Your task to perform on an android device: turn on data saver in the chrome app Image 0: 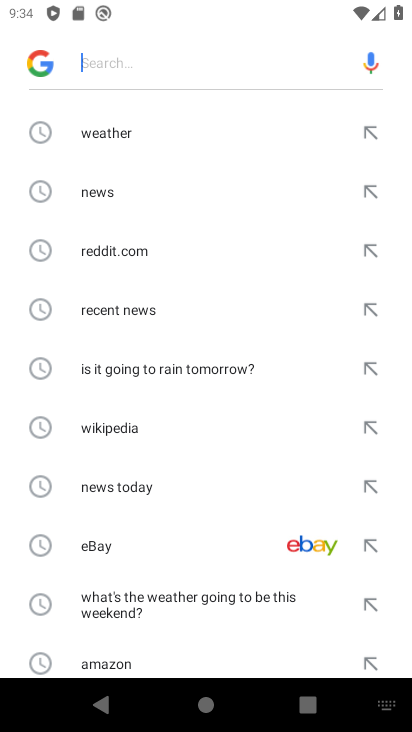
Step 0: press back button
Your task to perform on an android device: turn on data saver in the chrome app Image 1: 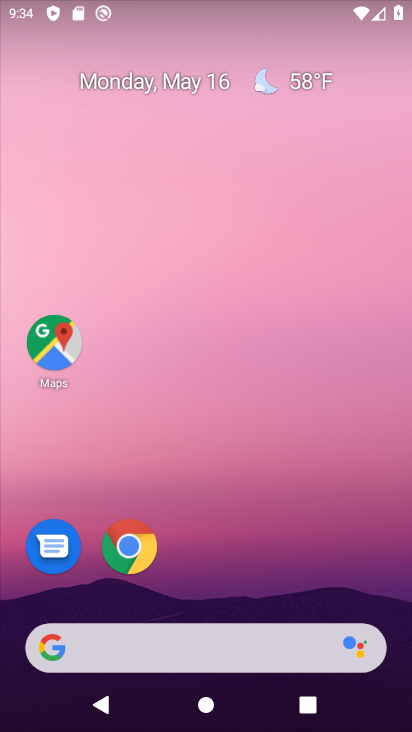
Step 1: click (130, 543)
Your task to perform on an android device: turn on data saver in the chrome app Image 2: 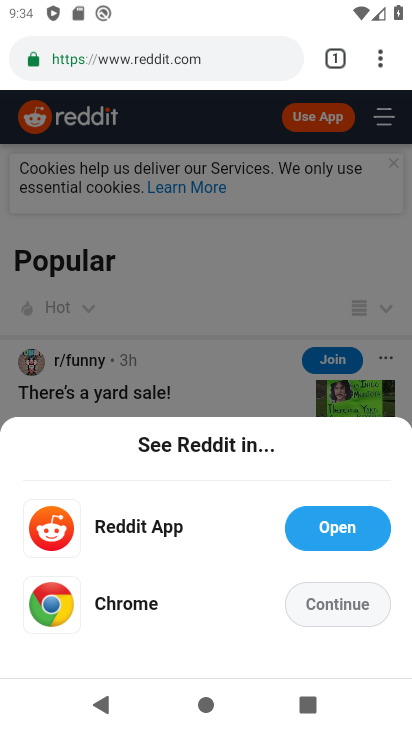
Step 2: click (380, 60)
Your task to perform on an android device: turn on data saver in the chrome app Image 3: 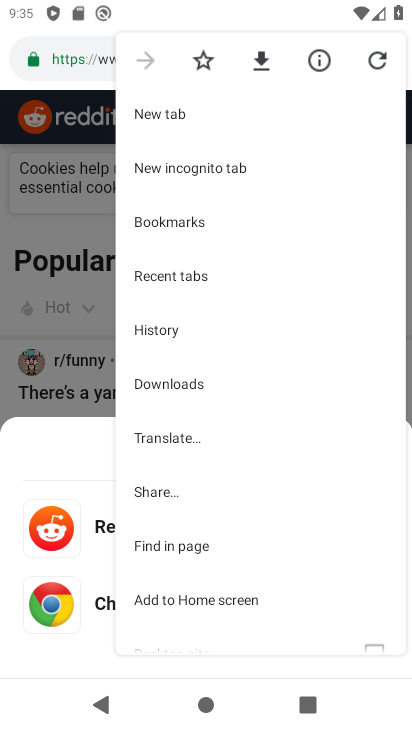
Step 3: drag from (191, 499) to (231, 444)
Your task to perform on an android device: turn on data saver in the chrome app Image 4: 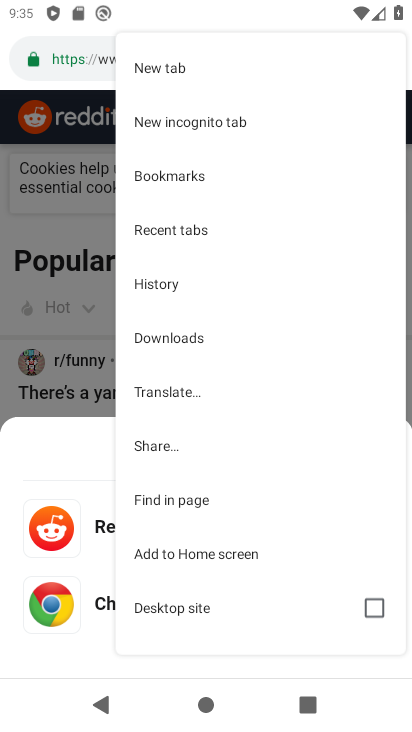
Step 4: drag from (185, 568) to (234, 496)
Your task to perform on an android device: turn on data saver in the chrome app Image 5: 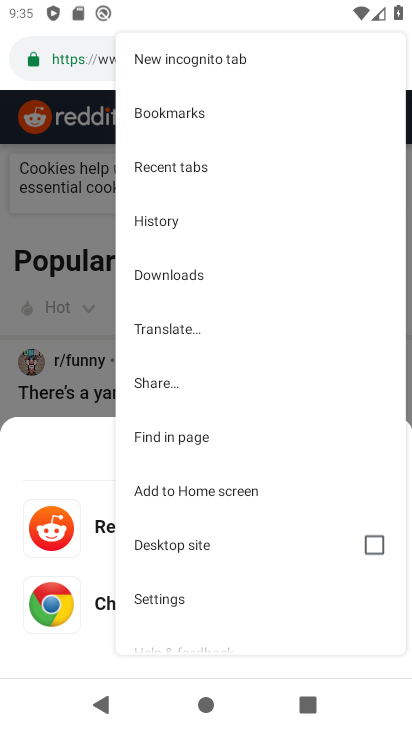
Step 5: drag from (188, 561) to (246, 476)
Your task to perform on an android device: turn on data saver in the chrome app Image 6: 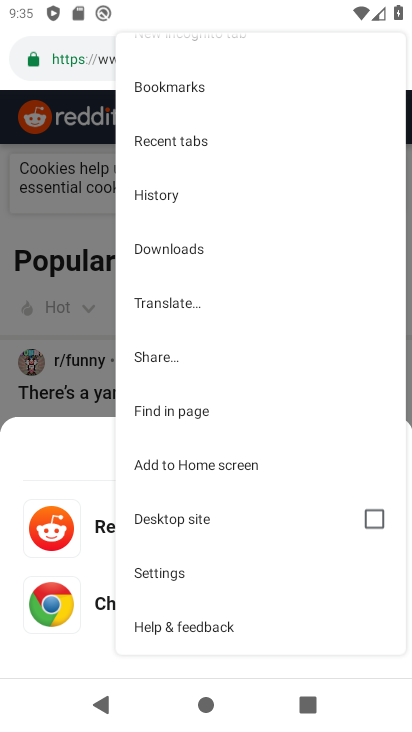
Step 6: click (164, 576)
Your task to perform on an android device: turn on data saver in the chrome app Image 7: 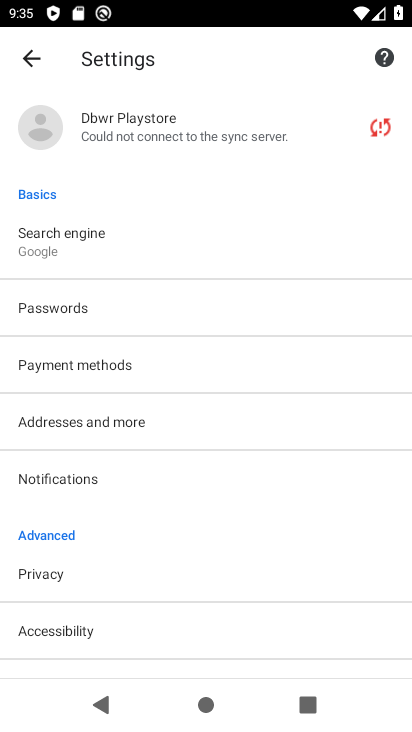
Step 7: drag from (128, 532) to (170, 463)
Your task to perform on an android device: turn on data saver in the chrome app Image 8: 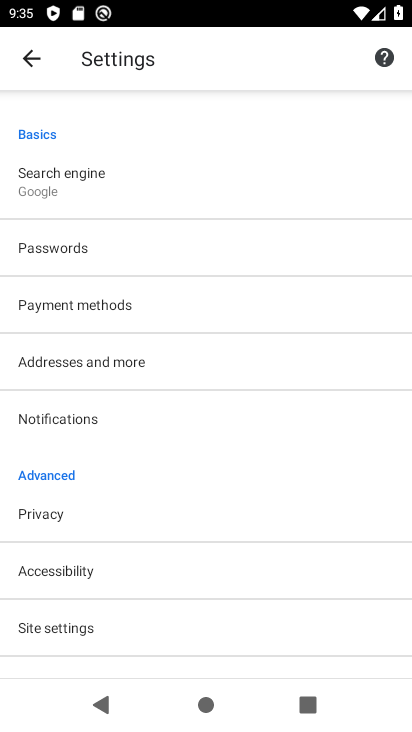
Step 8: drag from (105, 580) to (170, 468)
Your task to perform on an android device: turn on data saver in the chrome app Image 9: 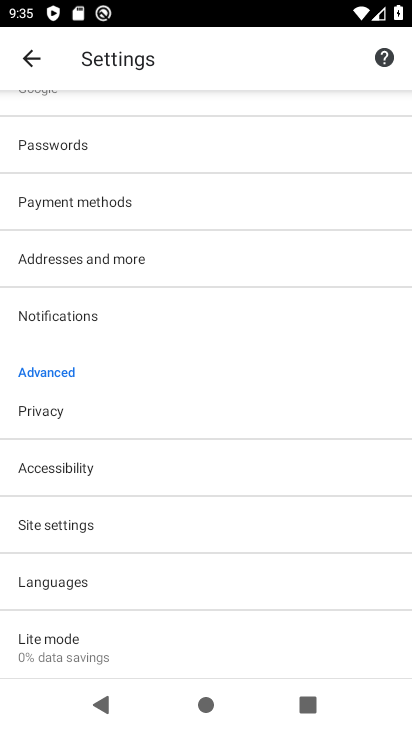
Step 9: click (80, 633)
Your task to perform on an android device: turn on data saver in the chrome app Image 10: 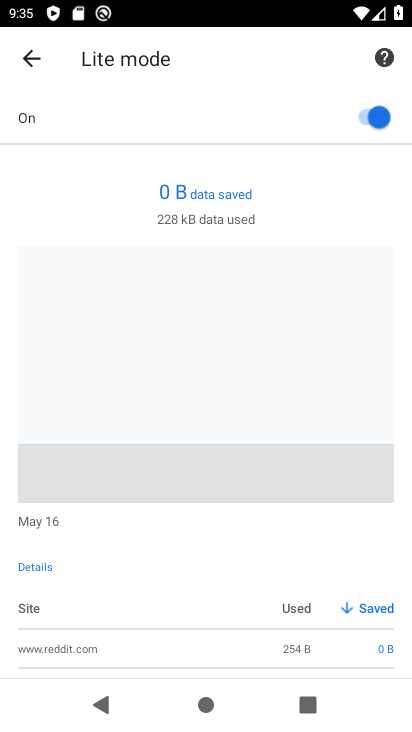
Step 10: task complete